Your task to perform on an android device: Toggle the flashlight Image 0: 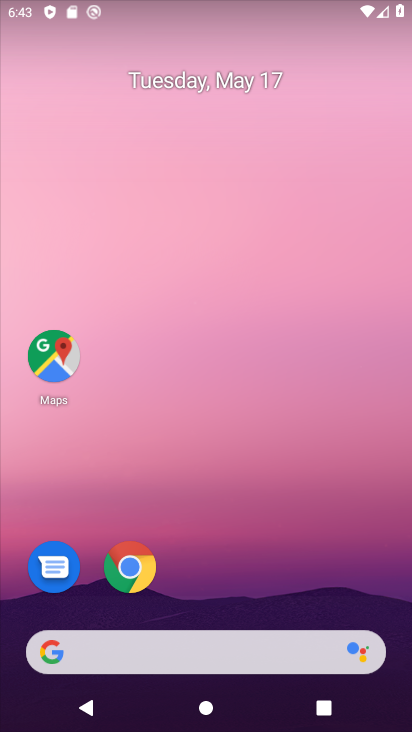
Step 0: drag from (250, 519) to (221, 117)
Your task to perform on an android device: Toggle the flashlight Image 1: 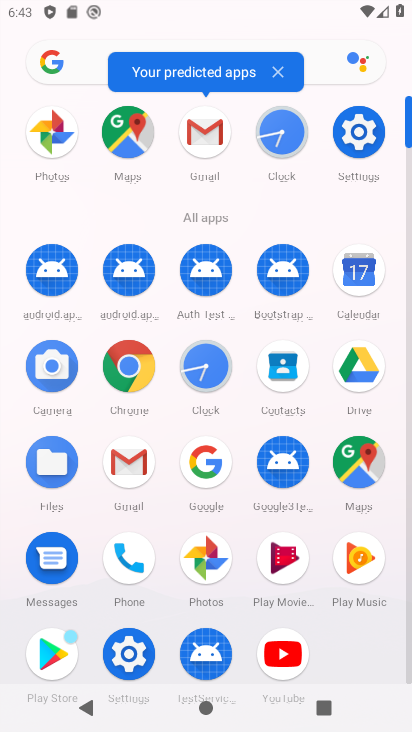
Step 1: click (355, 129)
Your task to perform on an android device: Toggle the flashlight Image 2: 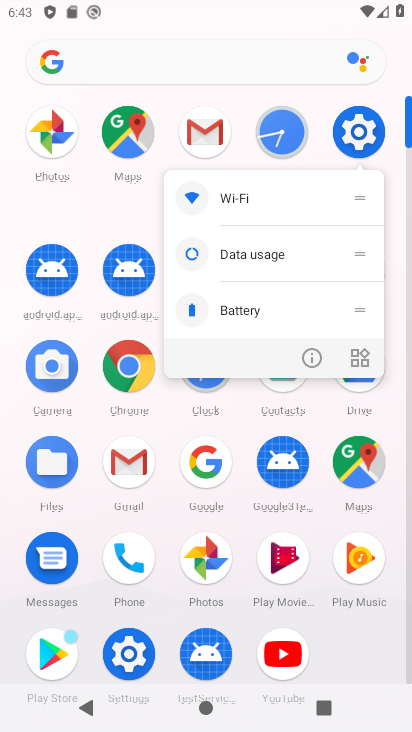
Step 2: click (364, 132)
Your task to perform on an android device: Toggle the flashlight Image 3: 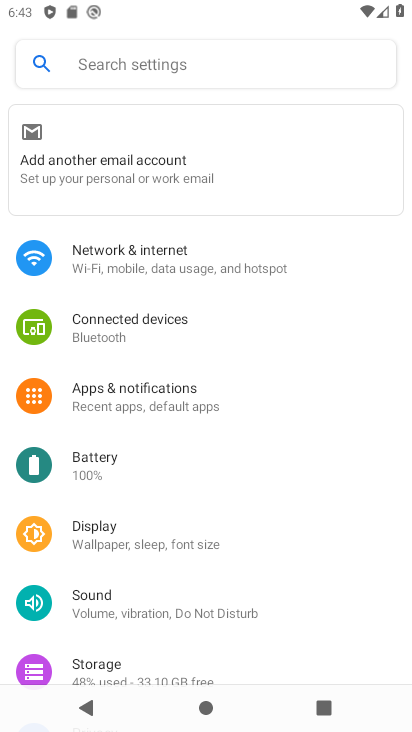
Step 3: click (82, 525)
Your task to perform on an android device: Toggle the flashlight Image 4: 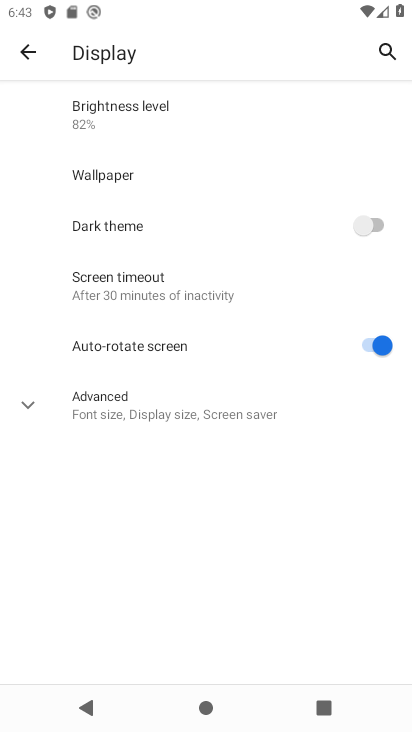
Step 4: task complete